Your task to perform on an android device: Set the phone to "Do not disturb". Image 0: 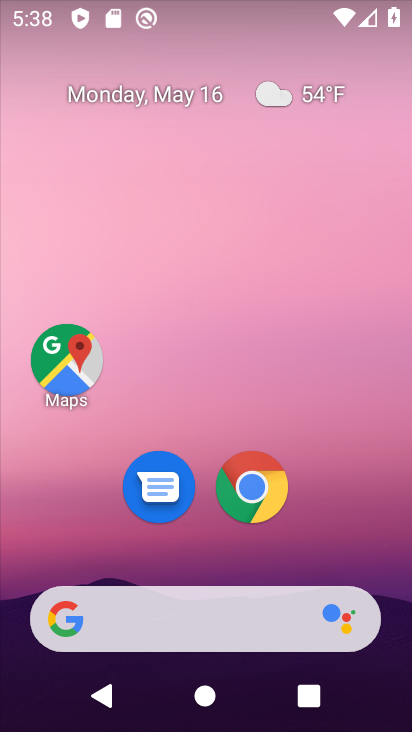
Step 0: press home button
Your task to perform on an android device: Set the phone to "Do not disturb". Image 1: 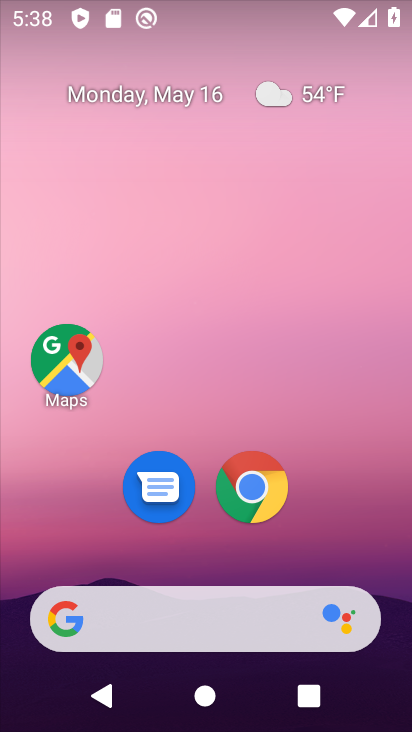
Step 1: drag from (212, 583) to (202, 242)
Your task to perform on an android device: Set the phone to "Do not disturb". Image 2: 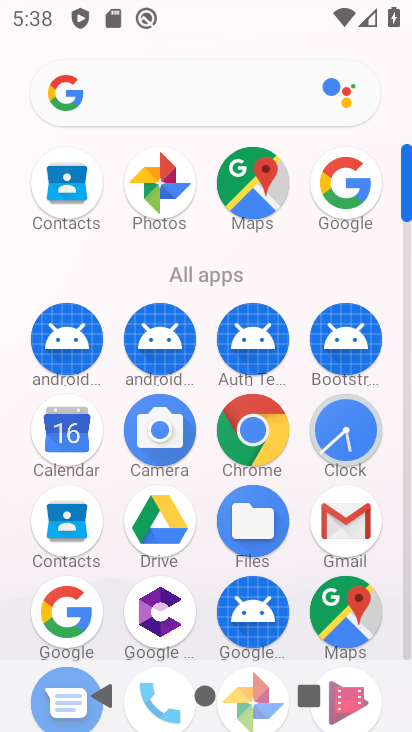
Step 2: drag from (111, 567) to (111, 248)
Your task to perform on an android device: Set the phone to "Do not disturb". Image 3: 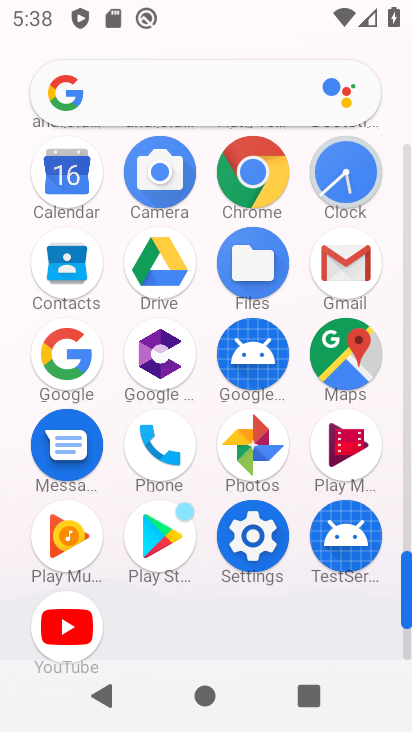
Step 3: click (269, 531)
Your task to perform on an android device: Set the phone to "Do not disturb". Image 4: 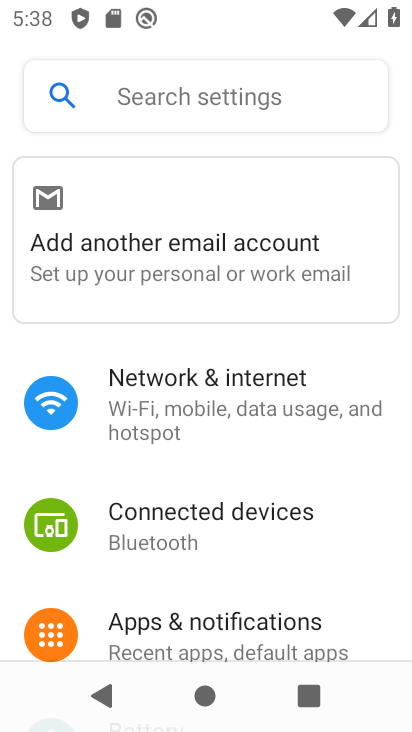
Step 4: drag from (196, 641) to (188, 390)
Your task to perform on an android device: Set the phone to "Do not disturb". Image 5: 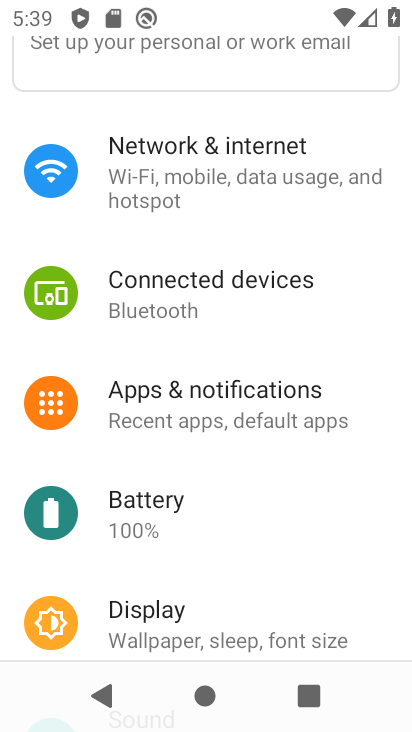
Step 5: drag from (221, 590) to (225, 326)
Your task to perform on an android device: Set the phone to "Do not disturb". Image 6: 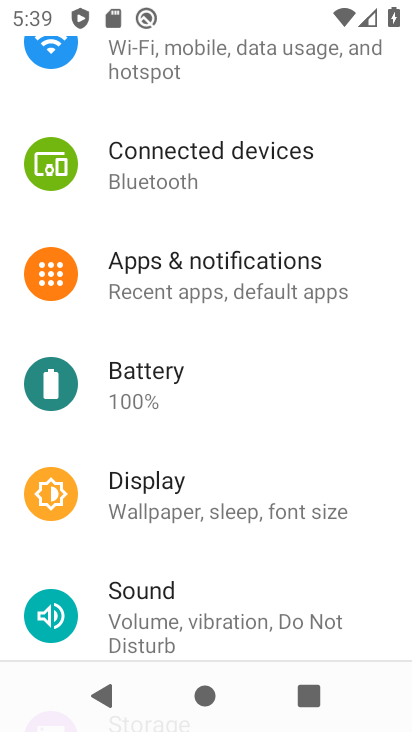
Step 6: click (262, 620)
Your task to perform on an android device: Set the phone to "Do not disturb". Image 7: 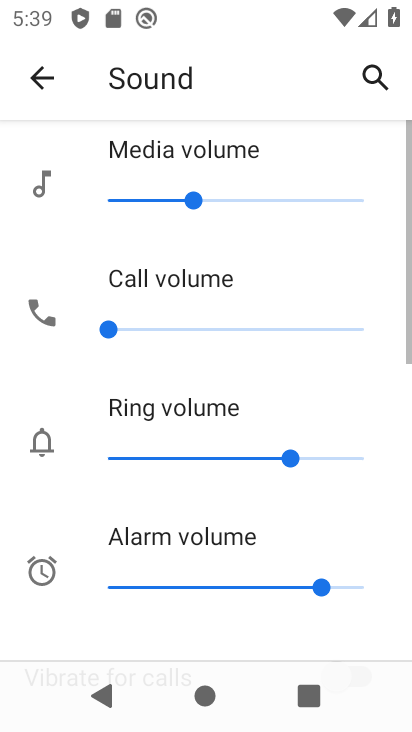
Step 7: drag from (245, 639) to (245, 269)
Your task to perform on an android device: Set the phone to "Do not disturb". Image 8: 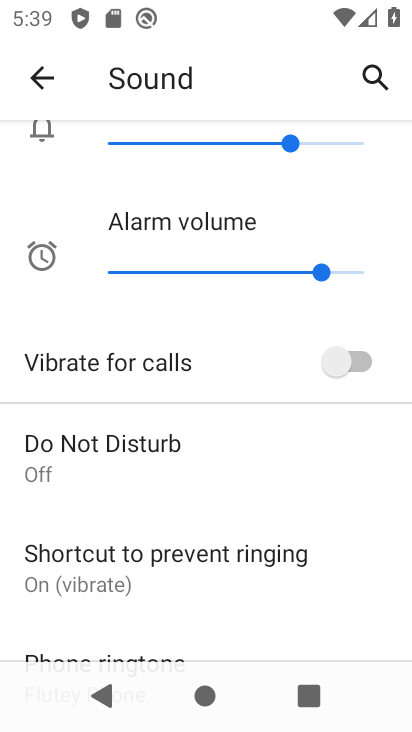
Step 8: click (74, 451)
Your task to perform on an android device: Set the phone to "Do not disturb". Image 9: 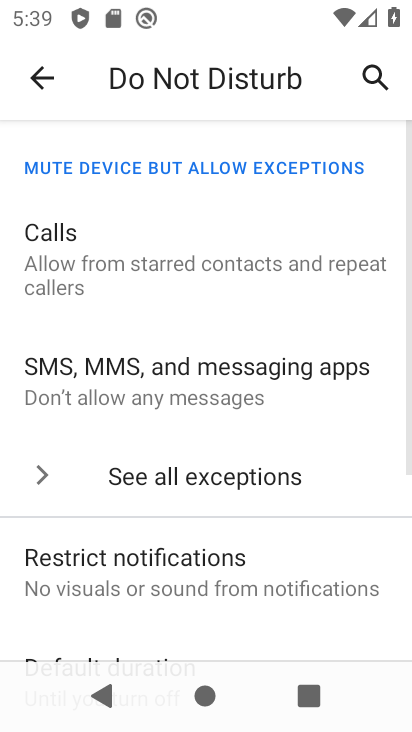
Step 9: drag from (208, 611) to (220, 208)
Your task to perform on an android device: Set the phone to "Do not disturb". Image 10: 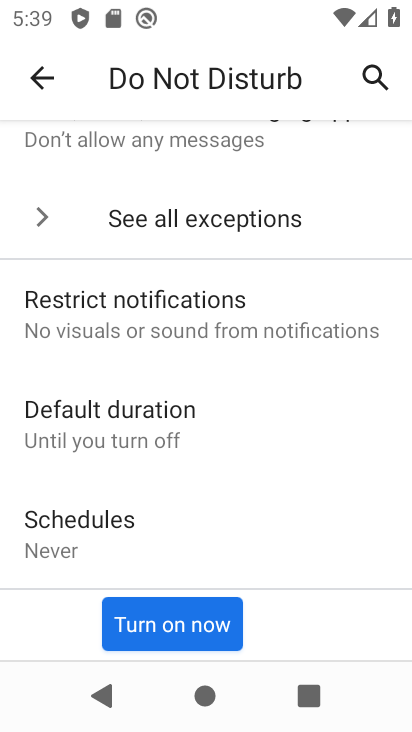
Step 10: click (212, 625)
Your task to perform on an android device: Set the phone to "Do not disturb". Image 11: 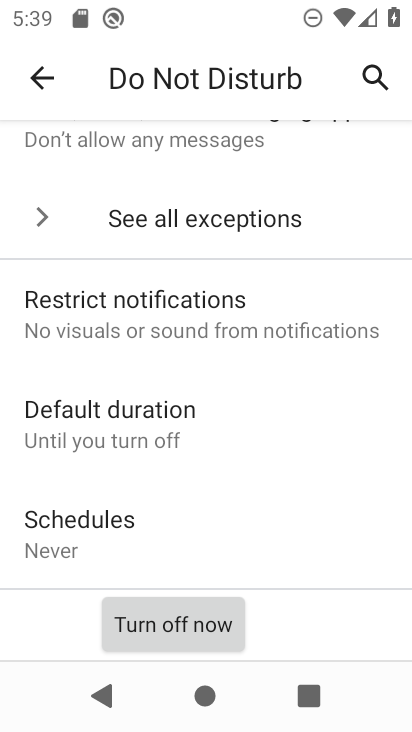
Step 11: task complete